Your task to perform on an android device: set the stopwatch Image 0: 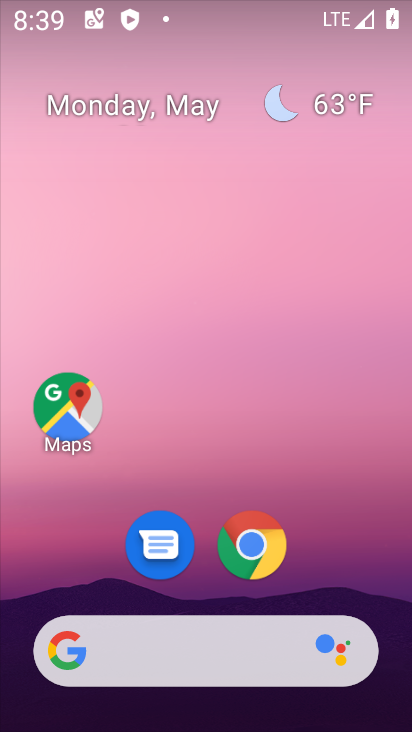
Step 0: drag from (216, 650) to (208, 277)
Your task to perform on an android device: set the stopwatch Image 1: 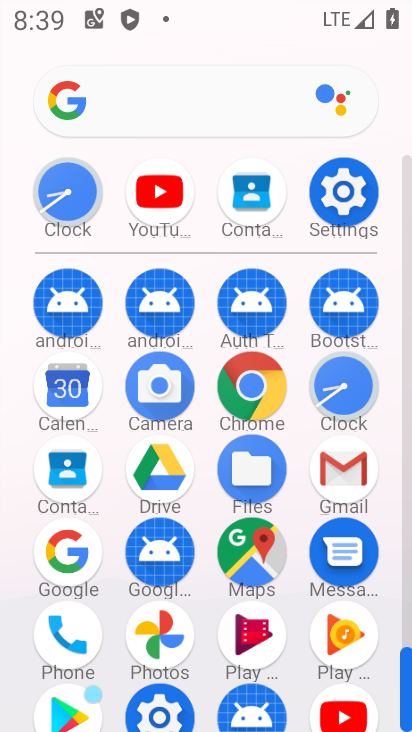
Step 1: click (326, 382)
Your task to perform on an android device: set the stopwatch Image 2: 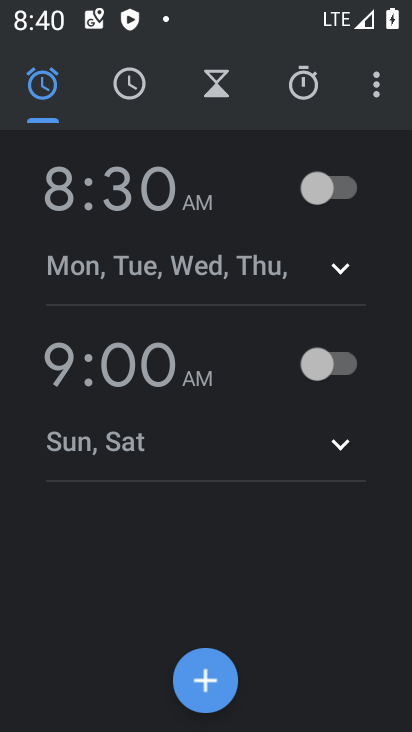
Step 2: click (218, 95)
Your task to perform on an android device: set the stopwatch Image 3: 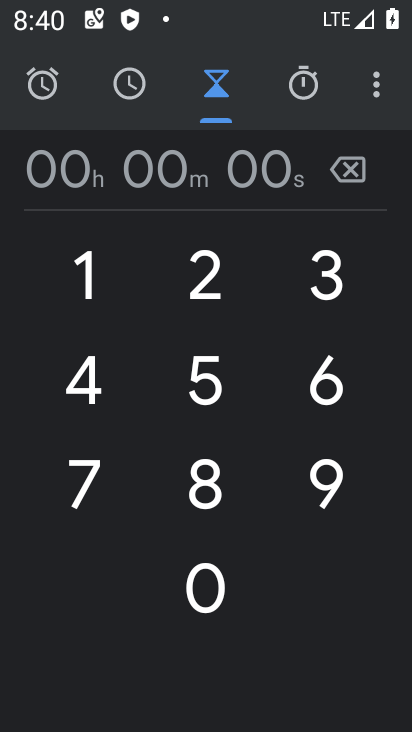
Step 3: click (201, 376)
Your task to perform on an android device: set the stopwatch Image 4: 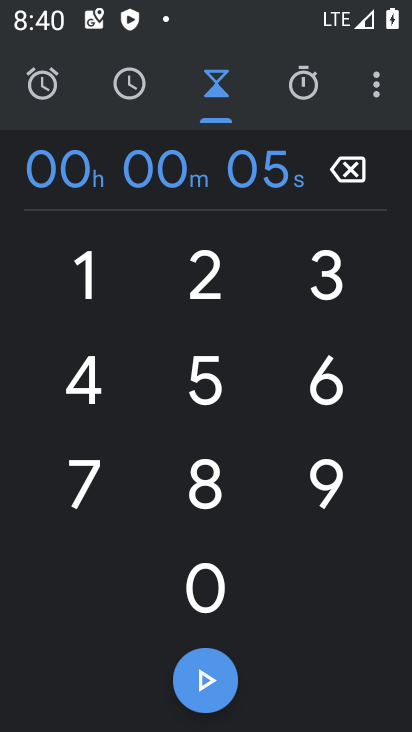
Step 4: click (339, 390)
Your task to perform on an android device: set the stopwatch Image 5: 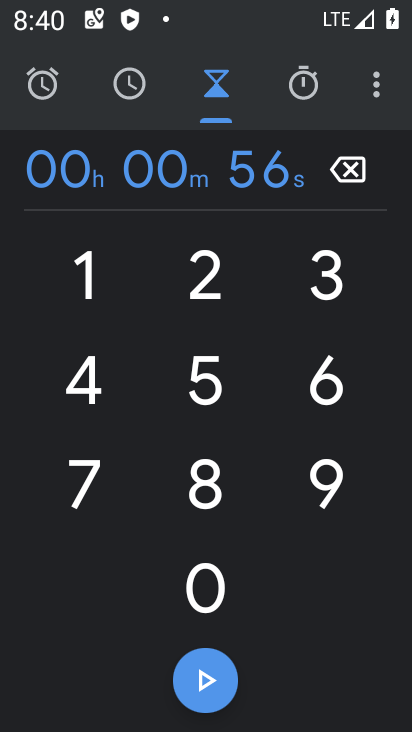
Step 5: click (96, 469)
Your task to perform on an android device: set the stopwatch Image 6: 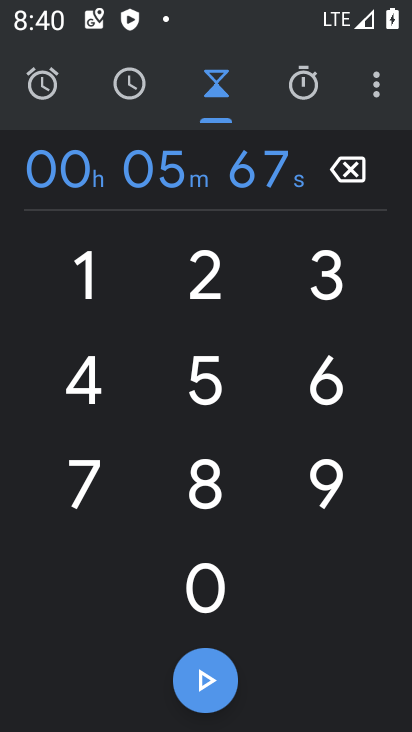
Step 6: click (216, 689)
Your task to perform on an android device: set the stopwatch Image 7: 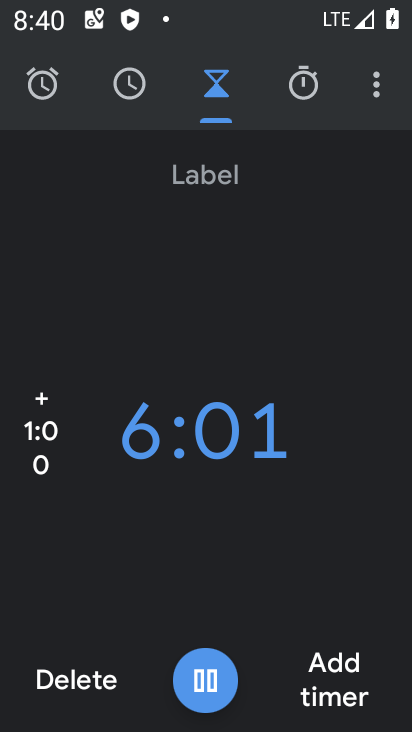
Step 7: task complete